Your task to perform on an android device: toggle notification dots Image 0: 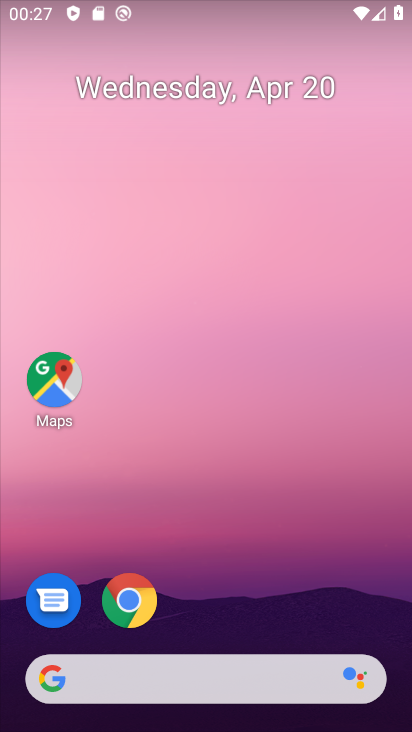
Step 0: drag from (247, 523) to (193, 20)
Your task to perform on an android device: toggle notification dots Image 1: 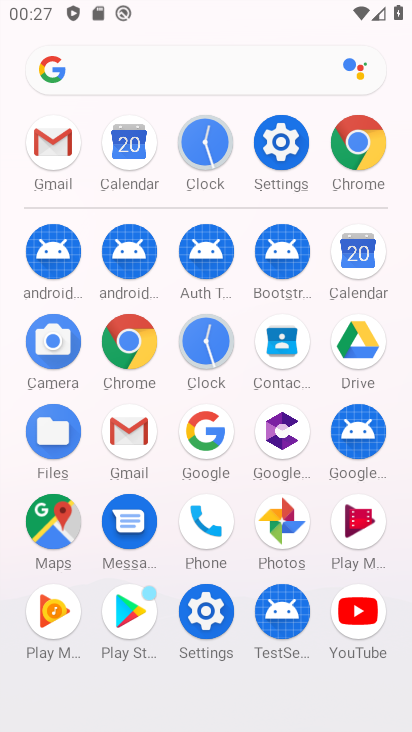
Step 1: drag from (2, 473) to (0, 278)
Your task to perform on an android device: toggle notification dots Image 2: 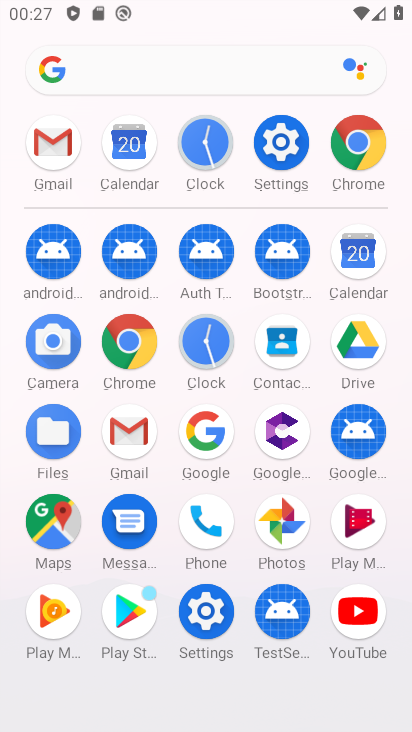
Step 2: click (206, 614)
Your task to perform on an android device: toggle notification dots Image 3: 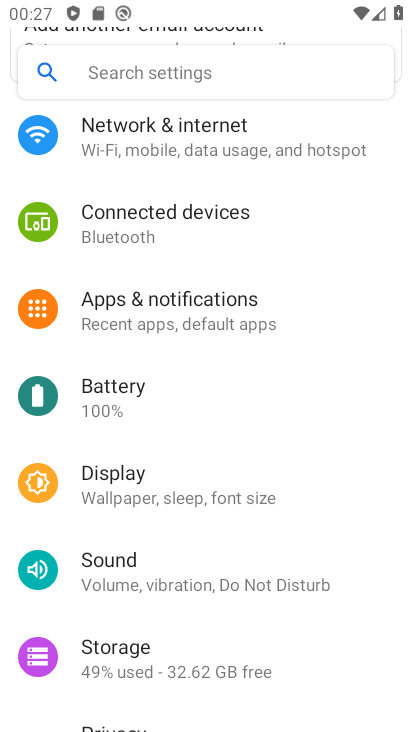
Step 3: drag from (272, 196) to (277, 488)
Your task to perform on an android device: toggle notification dots Image 4: 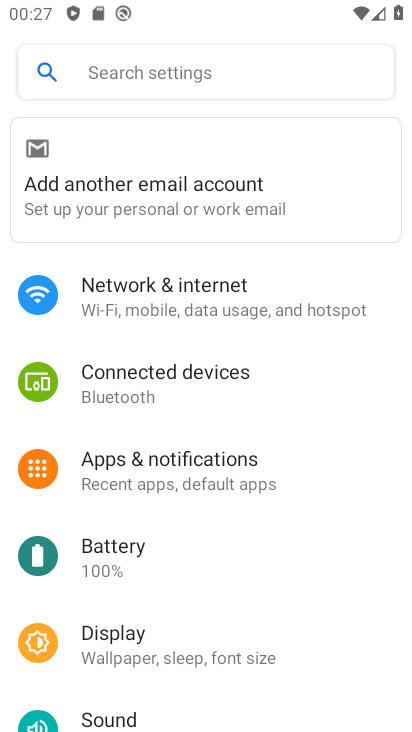
Step 4: click (176, 479)
Your task to perform on an android device: toggle notification dots Image 5: 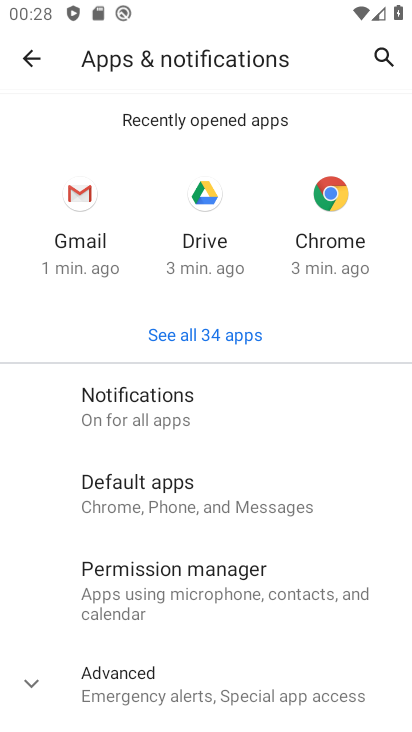
Step 5: click (157, 413)
Your task to perform on an android device: toggle notification dots Image 6: 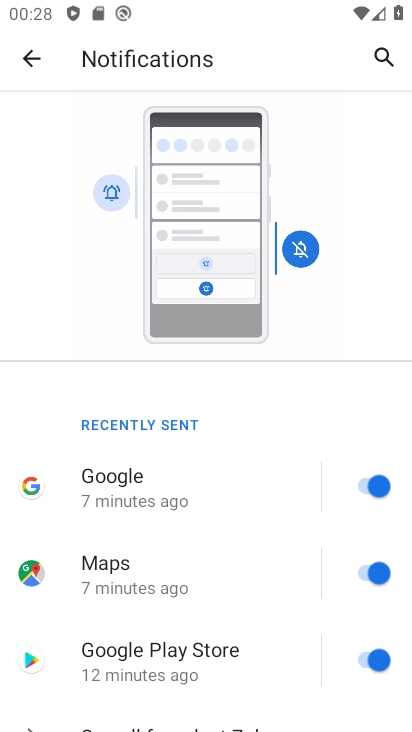
Step 6: drag from (241, 392) to (243, 105)
Your task to perform on an android device: toggle notification dots Image 7: 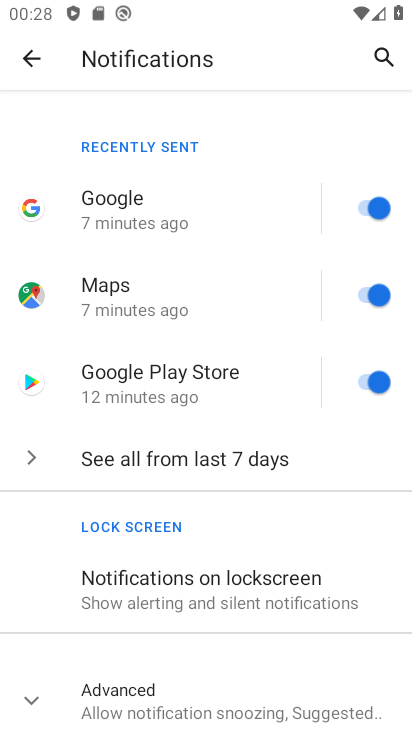
Step 7: drag from (229, 420) to (231, 200)
Your task to perform on an android device: toggle notification dots Image 8: 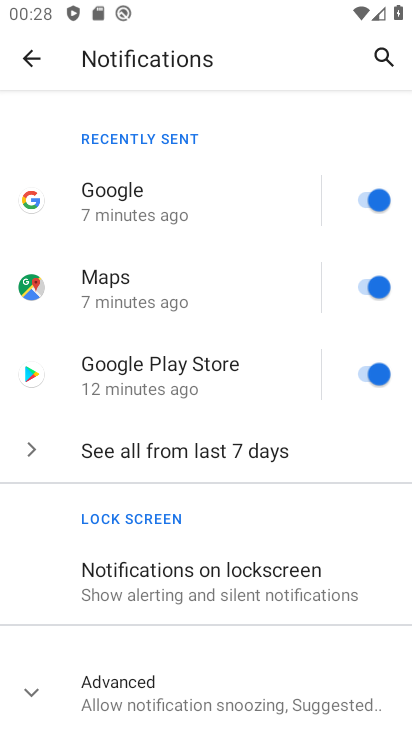
Step 8: click (134, 692)
Your task to perform on an android device: toggle notification dots Image 9: 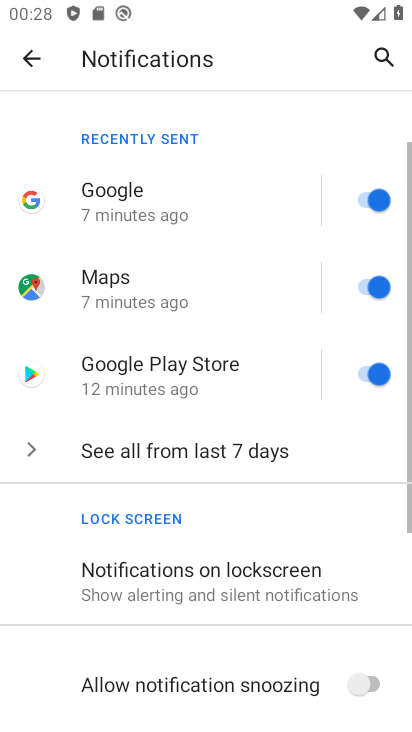
Step 9: drag from (296, 687) to (276, 192)
Your task to perform on an android device: toggle notification dots Image 10: 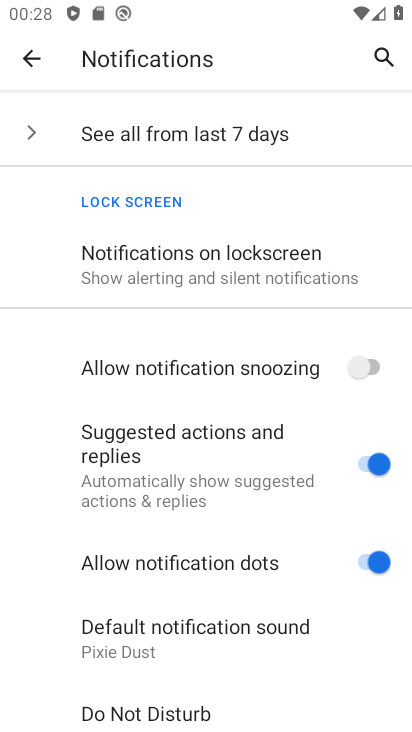
Step 10: click (362, 554)
Your task to perform on an android device: toggle notification dots Image 11: 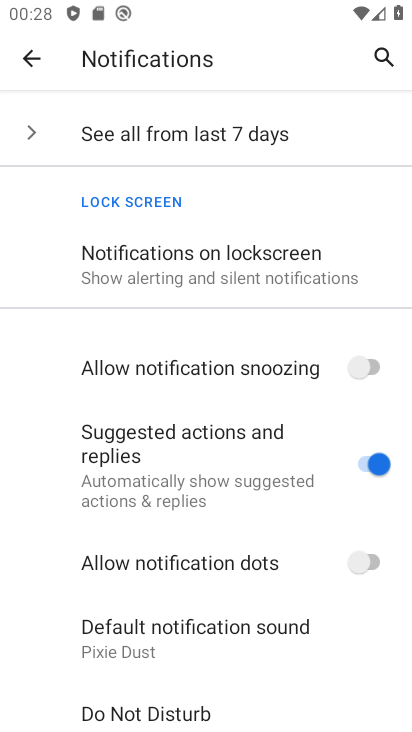
Step 11: task complete